Your task to perform on an android device: Turn on the flashlight Image 0: 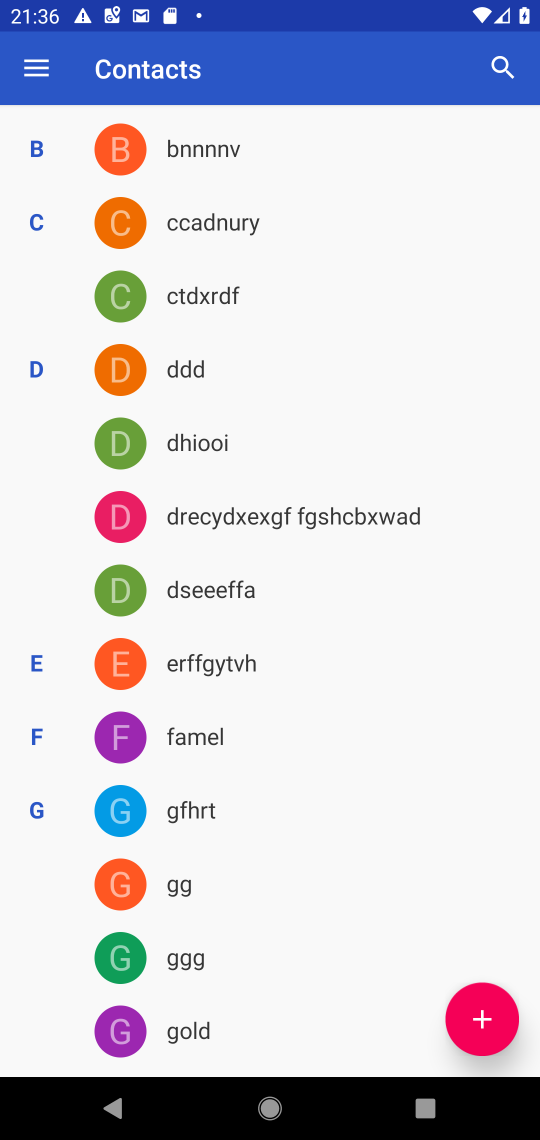
Step 0: press home button
Your task to perform on an android device: Turn on the flashlight Image 1: 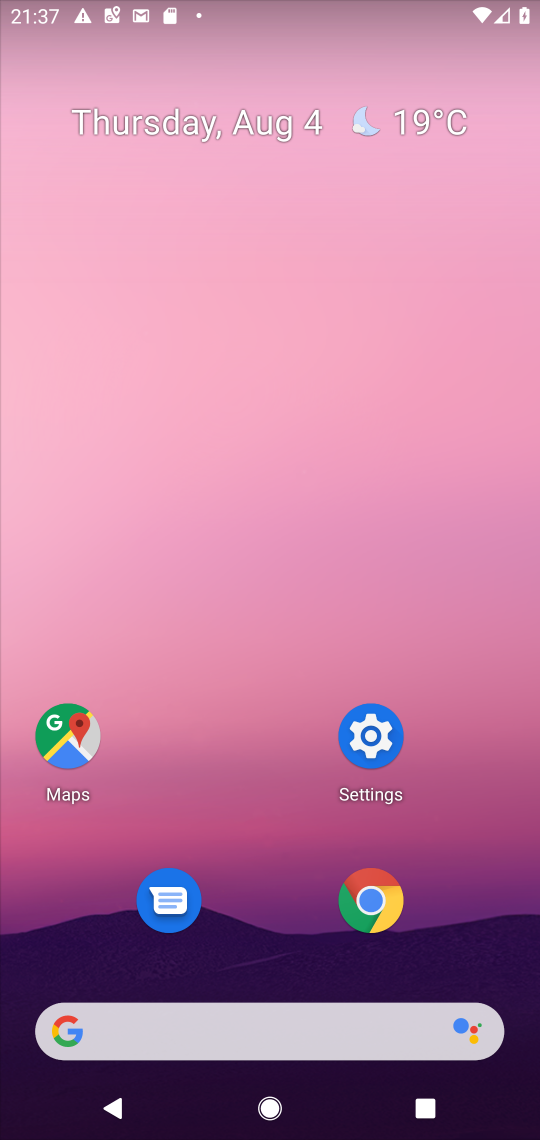
Step 1: task complete